Your task to perform on an android device: Open Wikipedia Image 0: 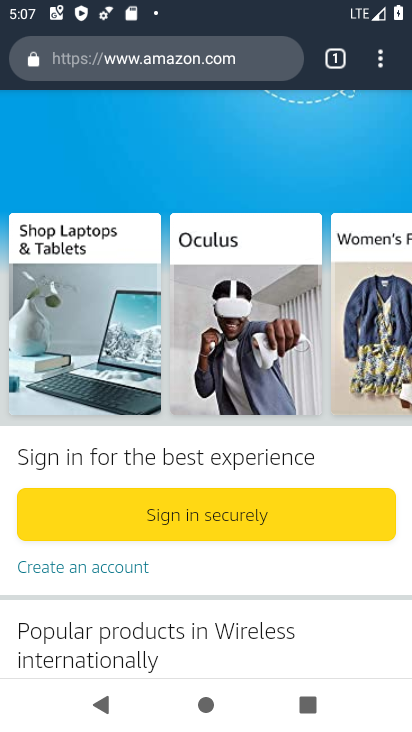
Step 0: drag from (266, 580) to (330, 107)
Your task to perform on an android device: Open Wikipedia Image 1: 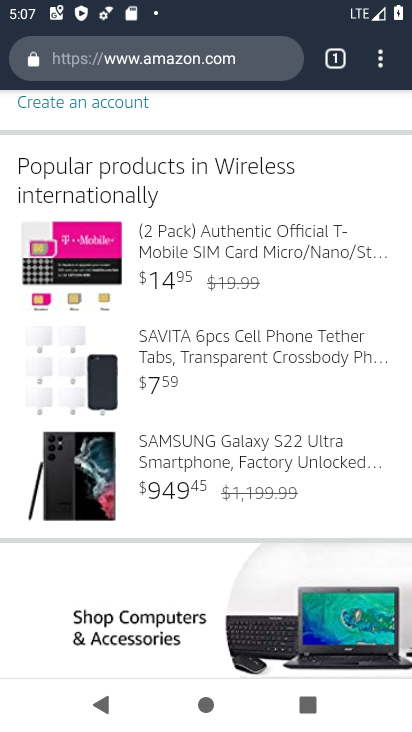
Step 1: press home button
Your task to perform on an android device: Open Wikipedia Image 2: 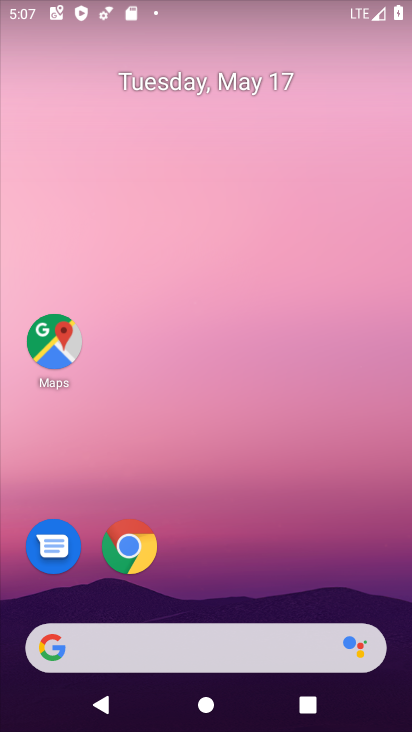
Step 2: drag from (213, 591) to (330, 173)
Your task to perform on an android device: Open Wikipedia Image 3: 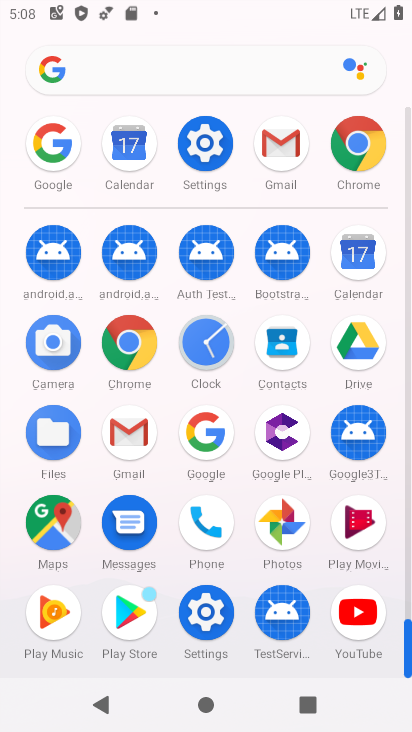
Step 3: press home button
Your task to perform on an android device: Open Wikipedia Image 4: 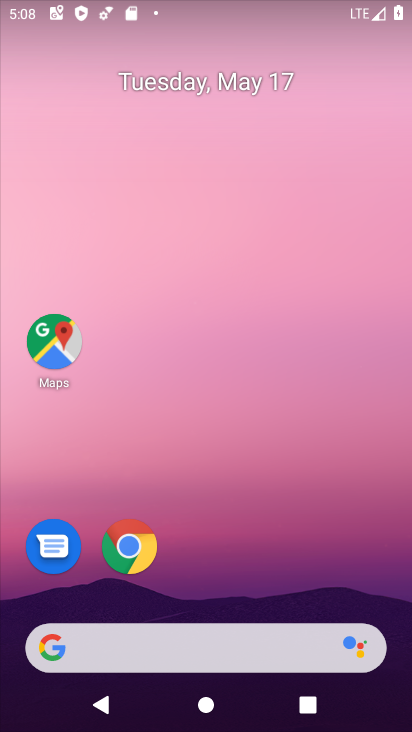
Step 4: click (131, 550)
Your task to perform on an android device: Open Wikipedia Image 5: 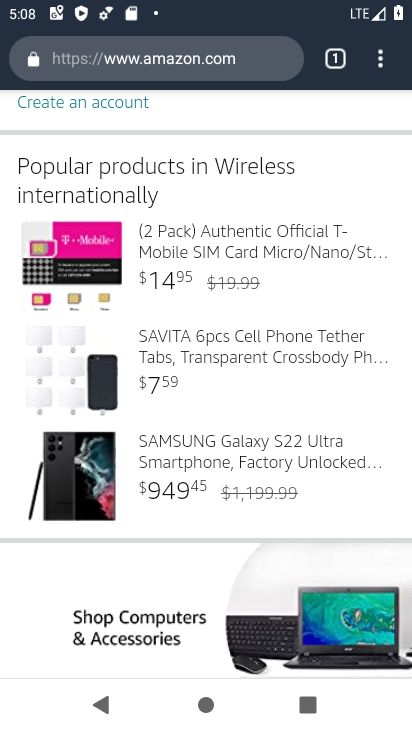
Step 5: click (378, 65)
Your task to perform on an android device: Open Wikipedia Image 6: 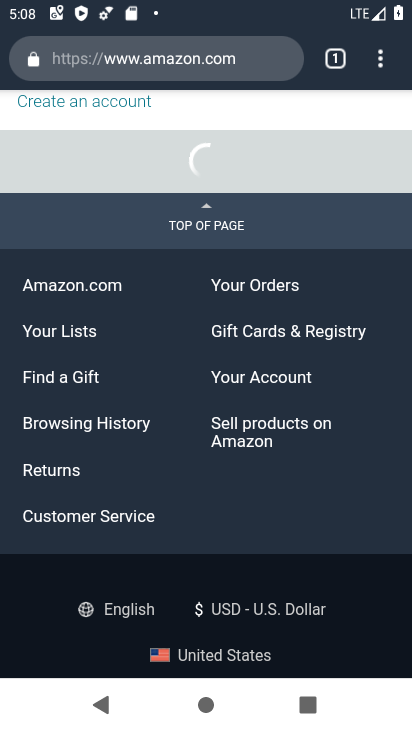
Step 6: click (379, 60)
Your task to perform on an android device: Open Wikipedia Image 7: 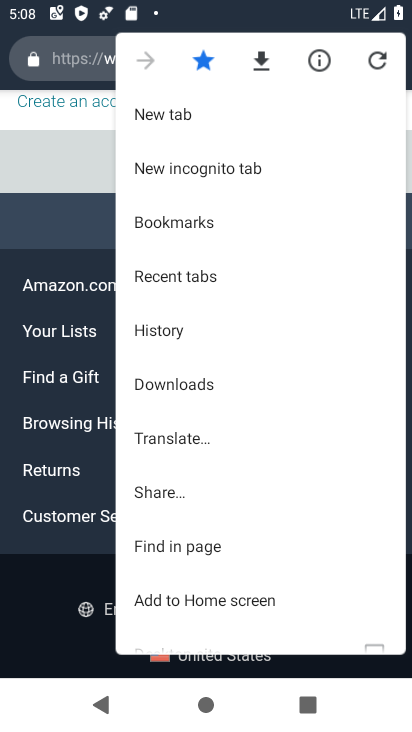
Step 7: press back button
Your task to perform on an android device: Open Wikipedia Image 8: 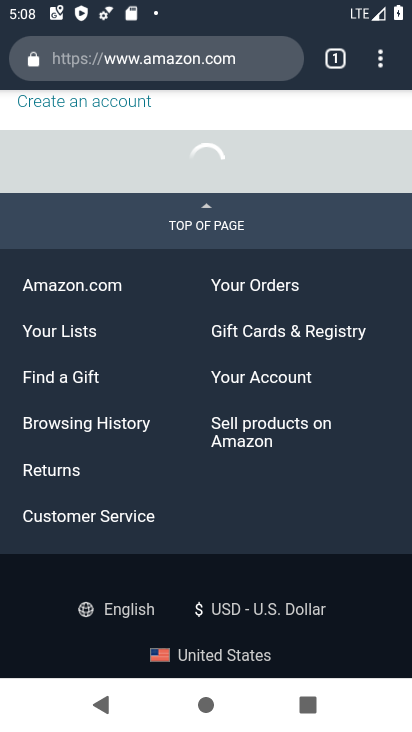
Step 8: press back button
Your task to perform on an android device: Open Wikipedia Image 9: 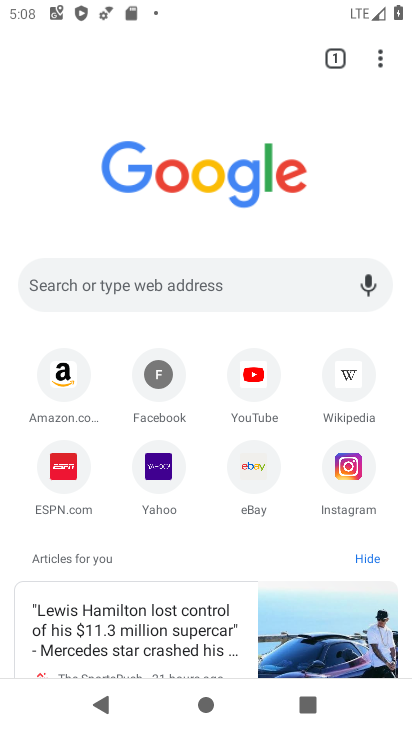
Step 9: click (345, 385)
Your task to perform on an android device: Open Wikipedia Image 10: 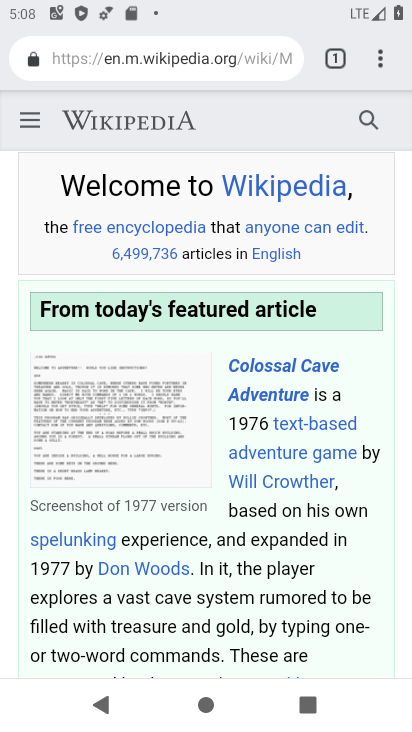
Step 10: task complete